Your task to perform on an android device: toggle airplane mode Image 0: 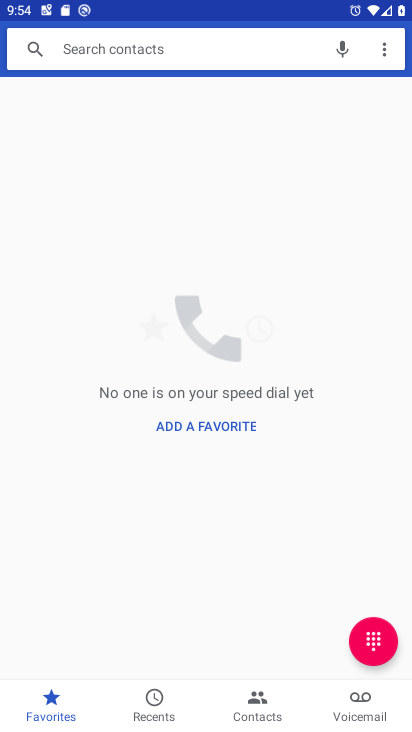
Step 0: press home button
Your task to perform on an android device: toggle airplane mode Image 1: 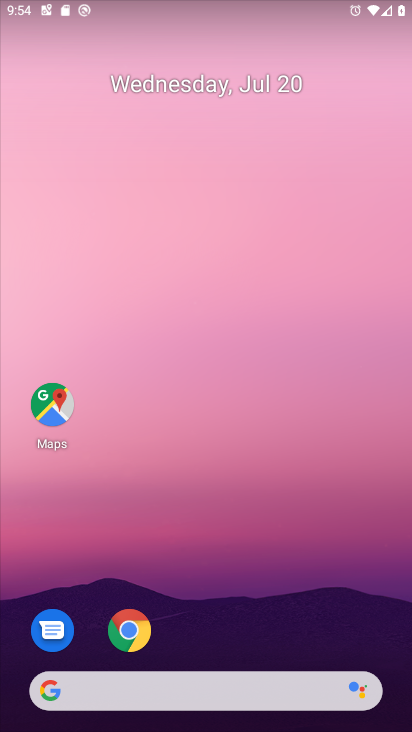
Step 1: drag from (180, 683) to (204, 141)
Your task to perform on an android device: toggle airplane mode Image 2: 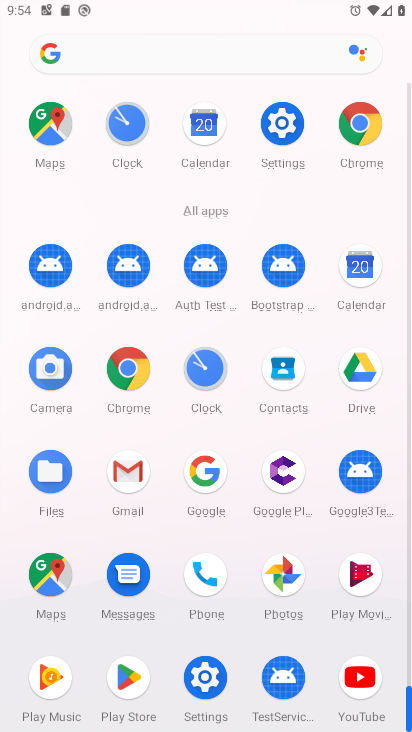
Step 2: drag from (206, 692) to (132, 279)
Your task to perform on an android device: toggle airplane mode Image 3: 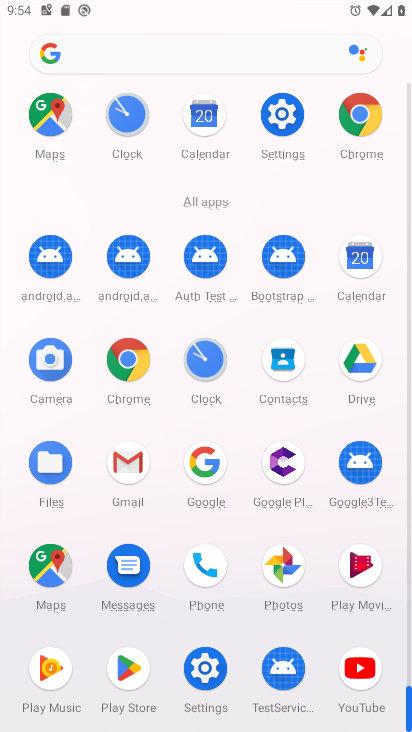
Step 3: click (283, 131)
Your task to perform on an android device: toggle airplane mode Image 4: 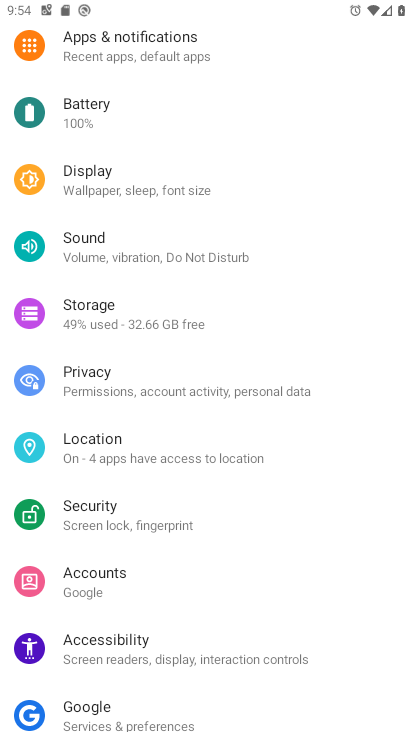
Step 4: drag from (187, 71) to (162, 571)
Your task to perform on an android device: toggle airplane mode Image 5: 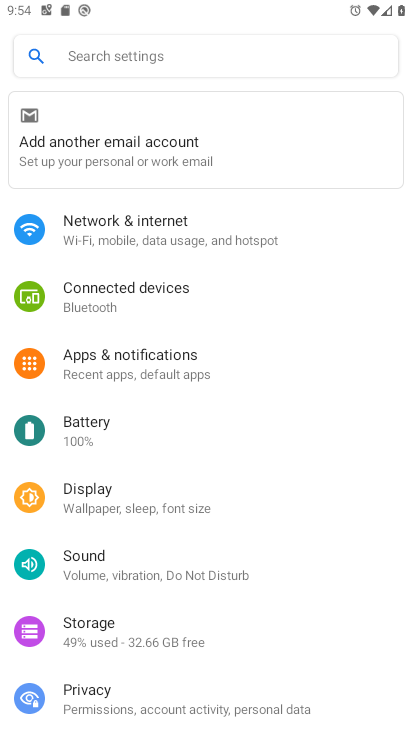
Step 5: click (147, 250)
Your task to perform on an android device: toggle airplane mode Image 6: 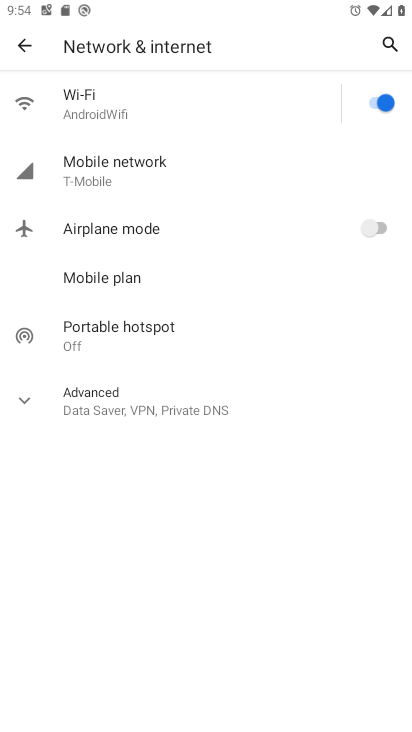
Step 6: click (376, 221)
Your task to perform on an android device: toggle airplane mode Image 7: 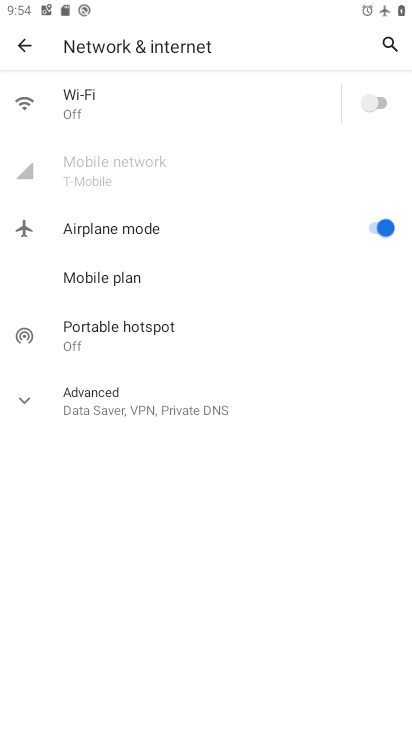
Step 7: task complete